Your task to perform on an android device: Open Youtube and go to the subscriptions tab Image 0: 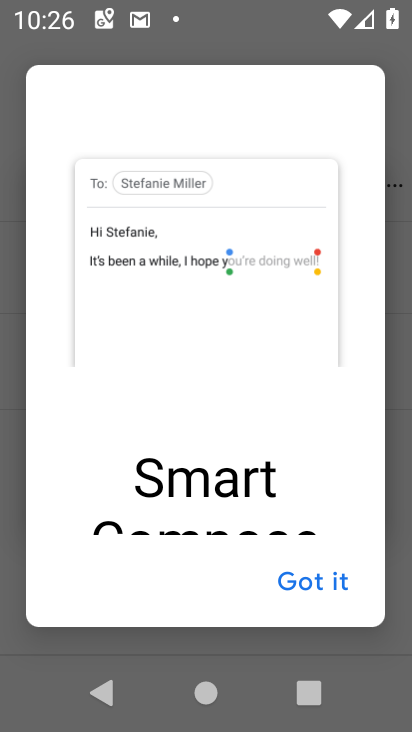
Step 0: press home button
Your task to perform on an android device: Open Youtube and go to the subscriptions tab Image 1: 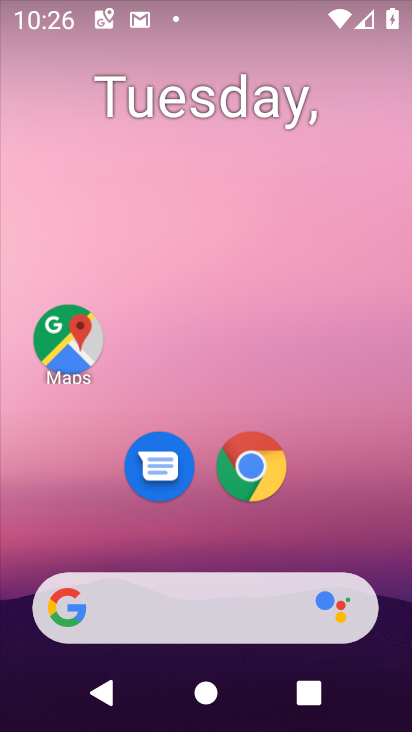
Step 1: drag from (247, 655) to (213, 50)
Your task to perform on an android device: Open Youtube and go to the subscriptions tab Image 2: 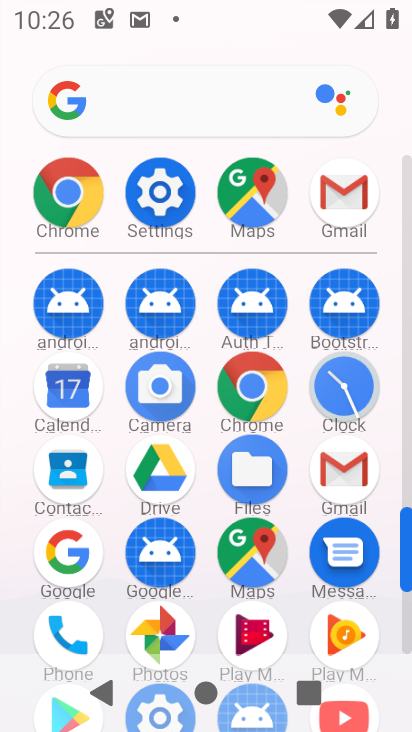
Step 2: drag from (201, 517) to (189, 360)
Your task to perform on an android device: Open Youtube and go to the subscriptions tab Image 3: 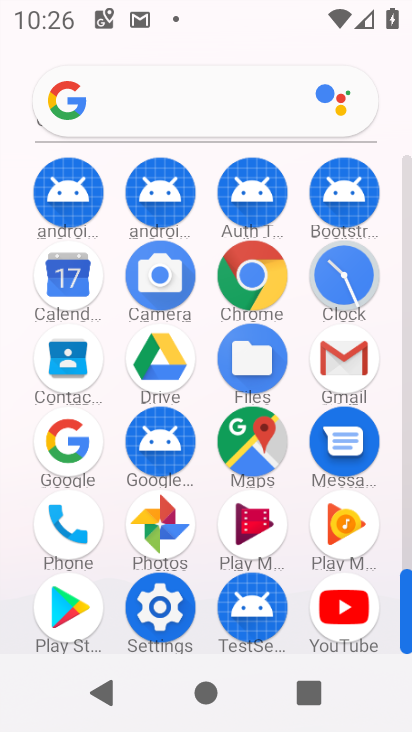
Step 3: click (349, 607)
Your task to perform on an android device: Open Youtube and go to the subscriptions tab Image 4: 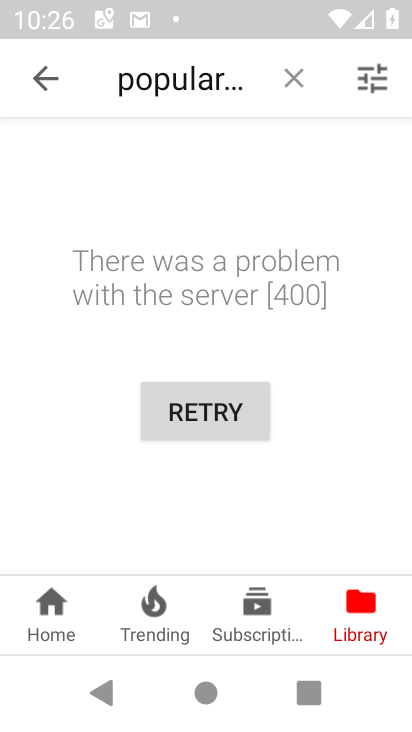
Step 4: click (243, 616)
Your task to perform on an android device: Open Youtube and go to the subscriptions tab Image 5: 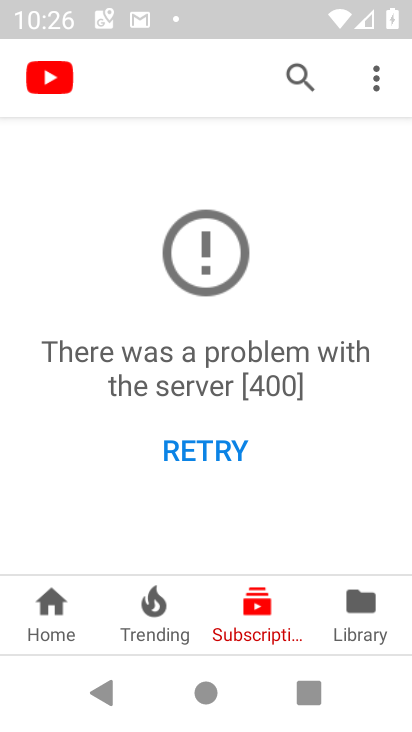
Step 5: task complete